Your task to perform on an android device: Open maps Image 0: 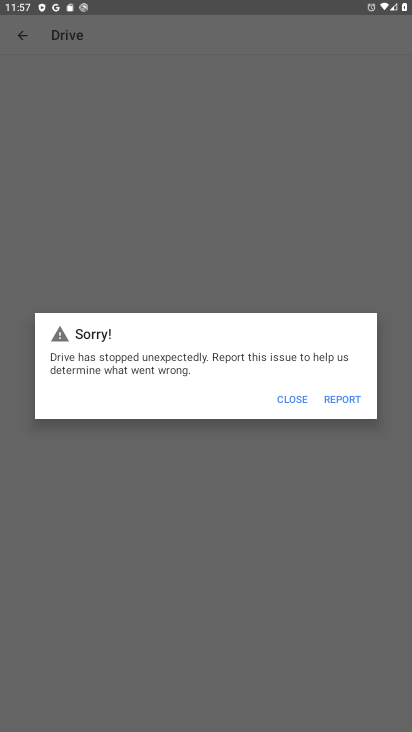
Step 0: press home button
Your task to perform on an android device: Open maps Image 1: 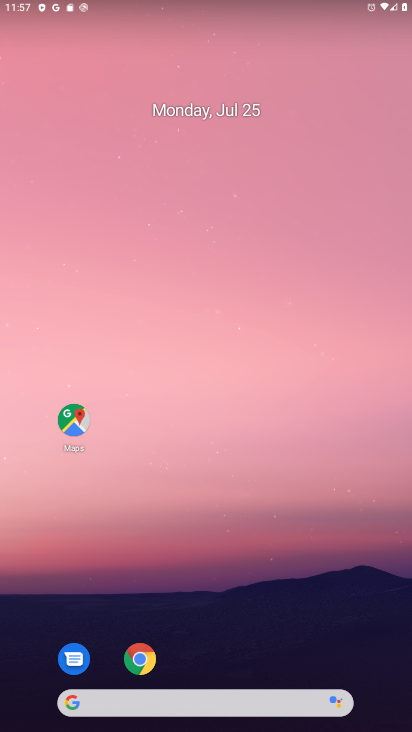
Step 1: click (75, 420)
Your task to perform on an android device: Open maps Image 2: 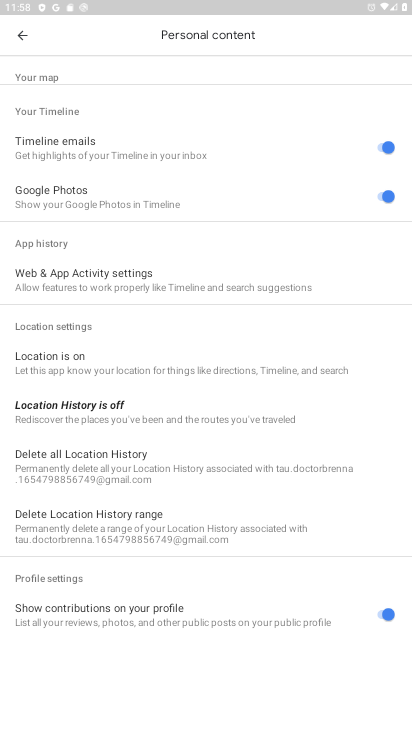
Step 2: click (18, 37)
Your task to perform on an android device: Open maps Image 3: 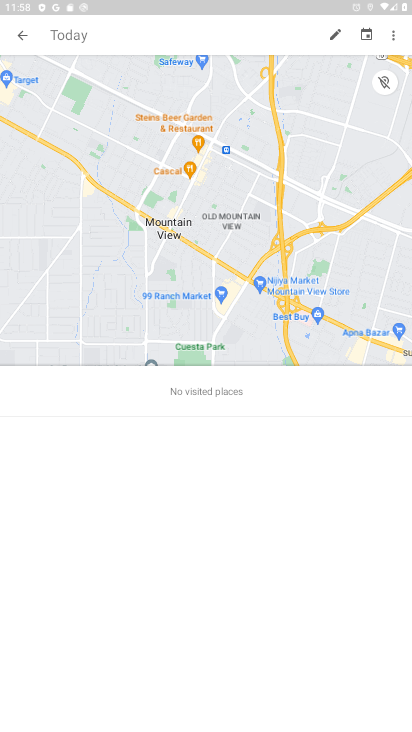
Step 3: click (18, 36)
Your task to perform on an android device: Open maps Image 4: 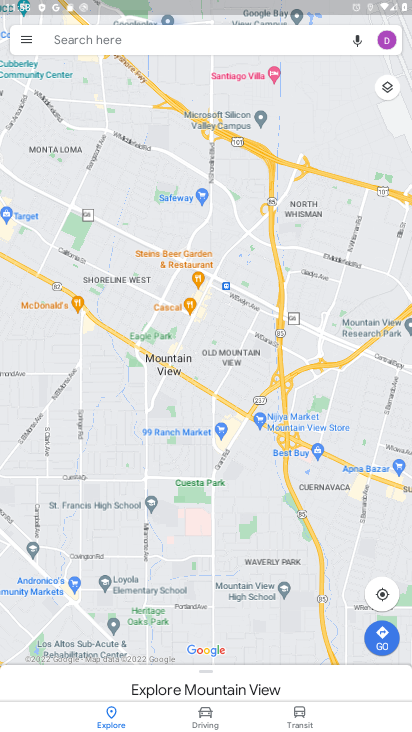
Step 4: task complete